Your task to perform on an android device: set default search engine in the chrome app Image 0: 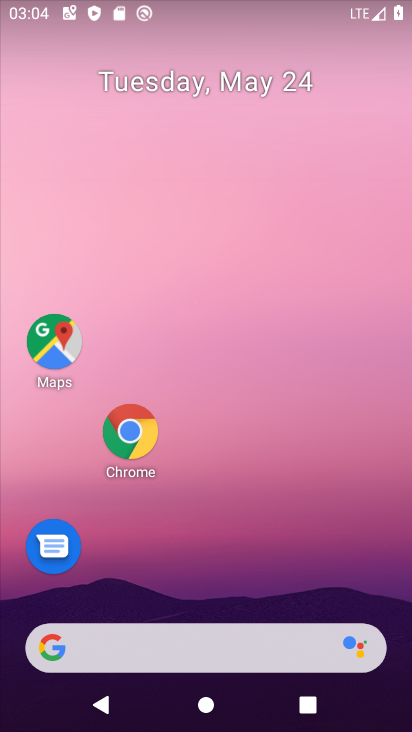
Step 0: drag from (194, 605) to (251, 0)
Your task to perform on an android device: set default search engine in the chrome app Image 1: 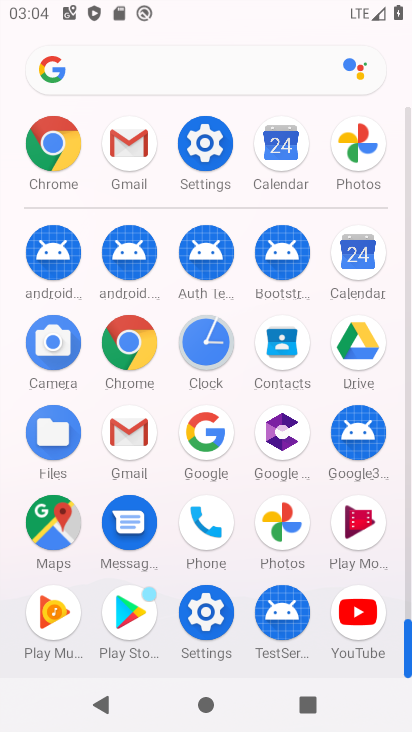
Step 1: click (128, 341)
Your task to perform on an android device: set default search engine in the chrome app Image 2: 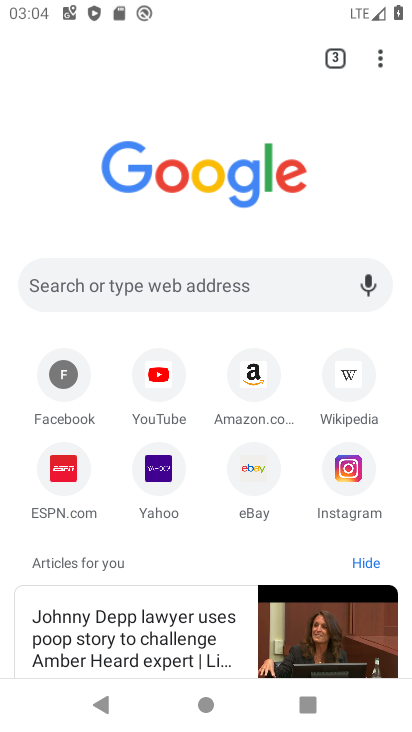
Step 2: drag from (218, 480) to (237, 137)
Your task to perform on an android device: set default search engine in the chrome app Image 3: 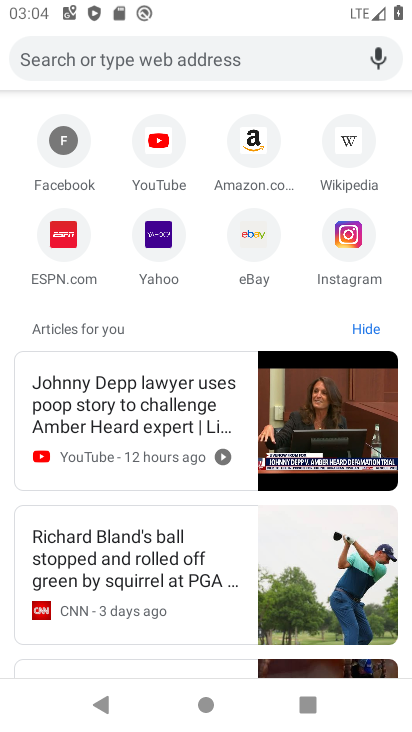
Step 3: drag from (135, 587) to (241, 667)
Your task to perform on an android device: set default search engine in the chrome app Image 4: 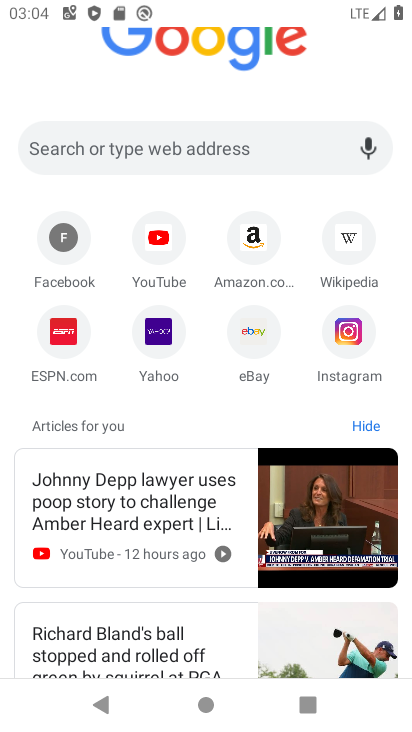
Step 4: drag from (331, 71) to (345, 433)
Your task to perform on an android device: set default search engine in the chrome app Image 5: 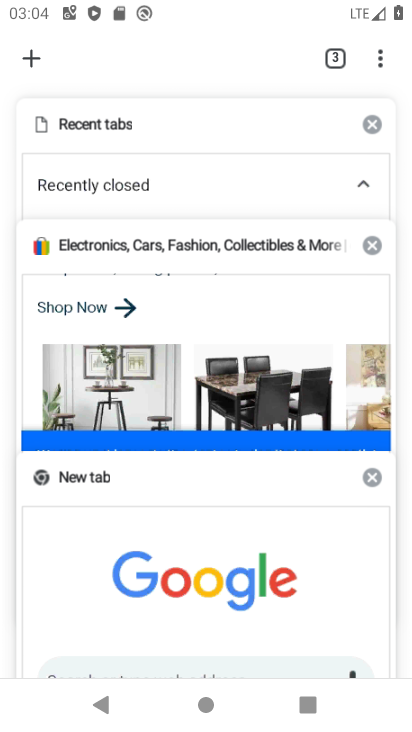
Step 5: click (289, 533)
Your task to perform on an android device: set default search engine in the chrome app Image 6: 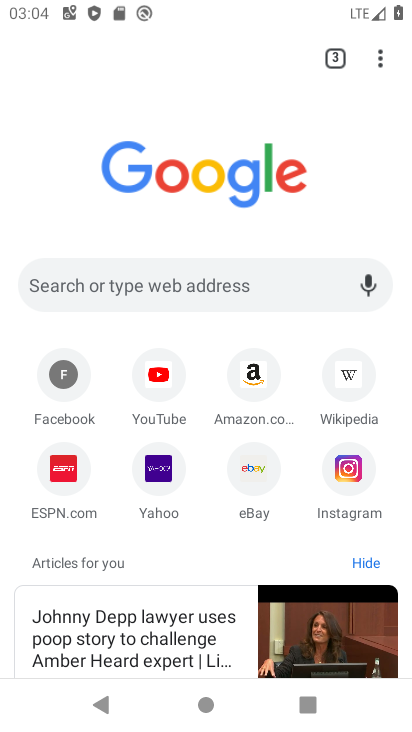
Step 6: click (377, 59)
Your task to perform on an android device: set default search engine in the chrome app Image 7: 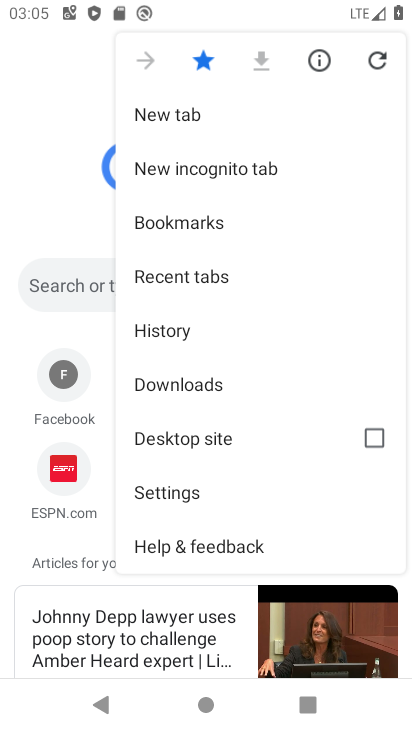
Step 7: click (184, 486)
Your task to perform on an android device: set default search engine in the chrome app Image 8: 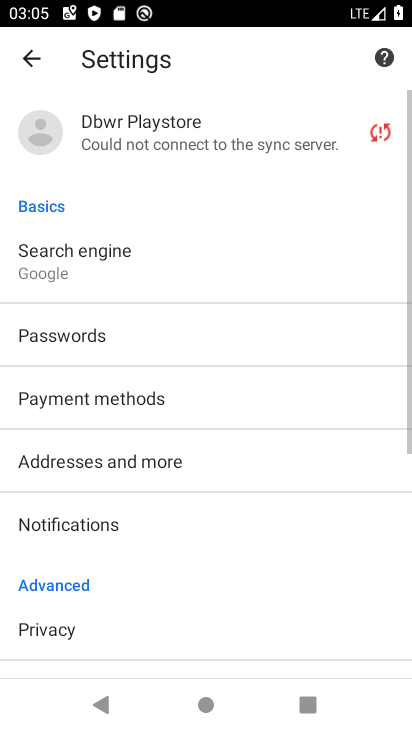
Step 8: click (134, 260)
Your task to perform on an android device: set default search engine in the chrome app Image 9: 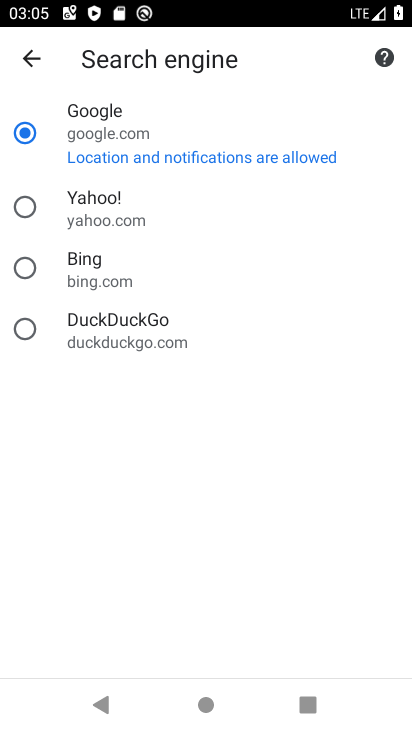
Step 9: task complete